Your task to perform on an android device: Add "bose soundlink" to the cart on bestbuy, then select checkout. Image 0: 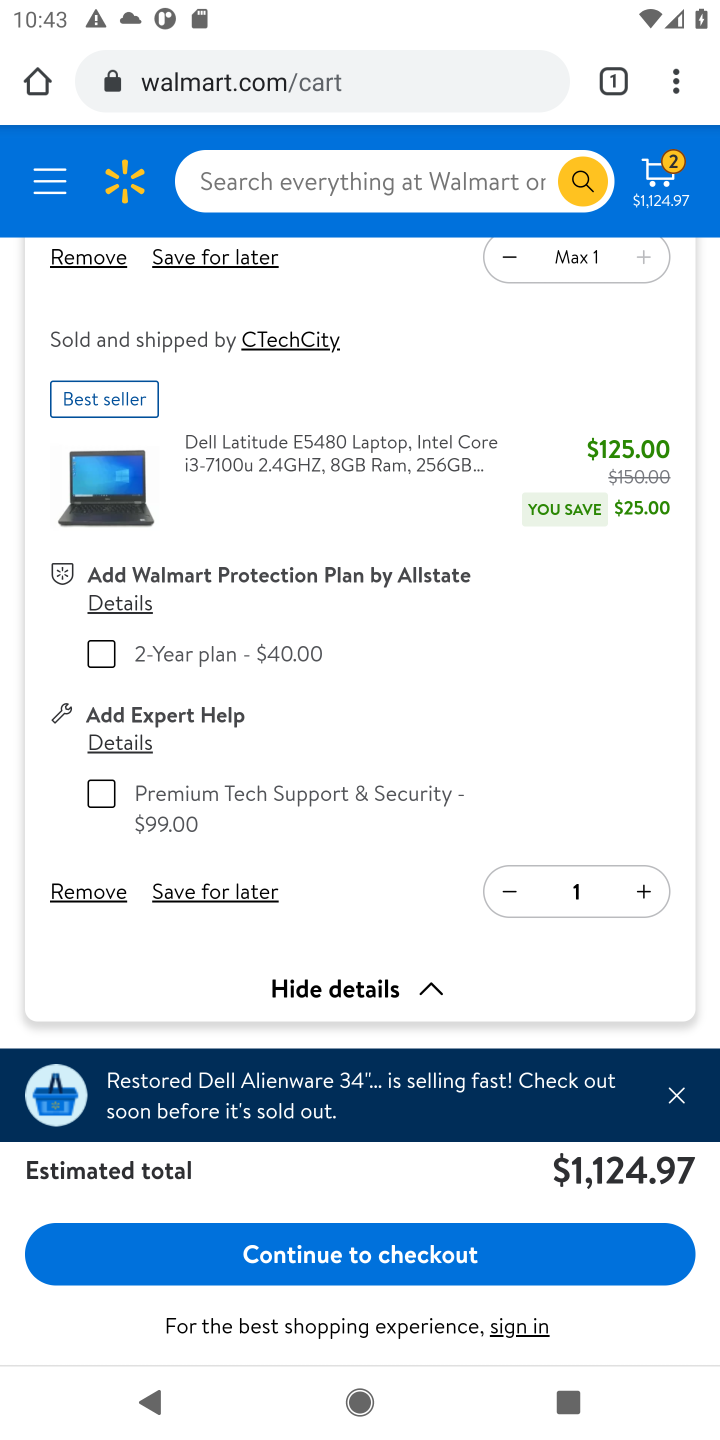
Step 0: click (256, 70)
Your task to perform on an android device: Add "bose soundlink" to the cart on bestbuy, then select checkout. Image 1: 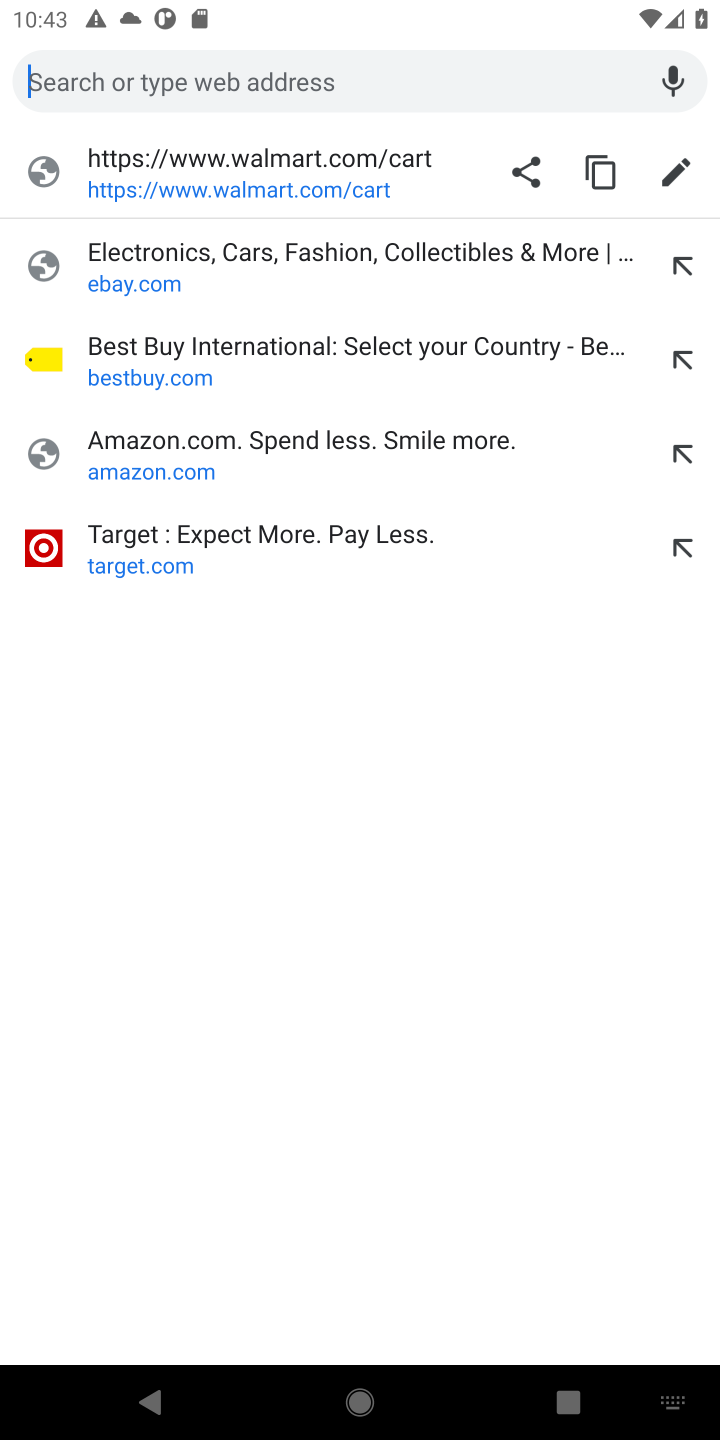
Step 1: click (115, 375)
Your task to perform on an android device: Add "bose soundlink" to the cart on bestbuy, then select checkout. Image 2: 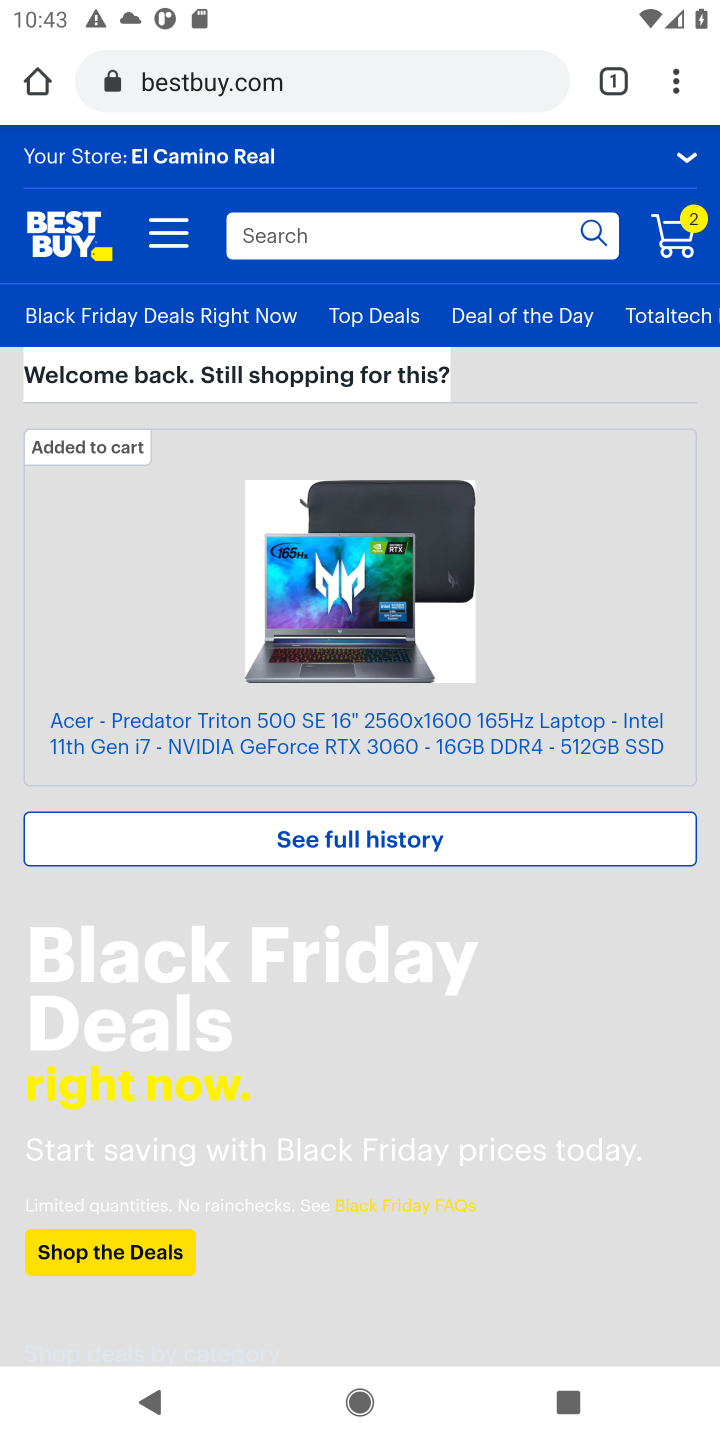
Step 2: click (315, 234)
Your task to perform on an android device: Add "bose soundlink" to the cart on bestbuy, then select checkout. Image 3: 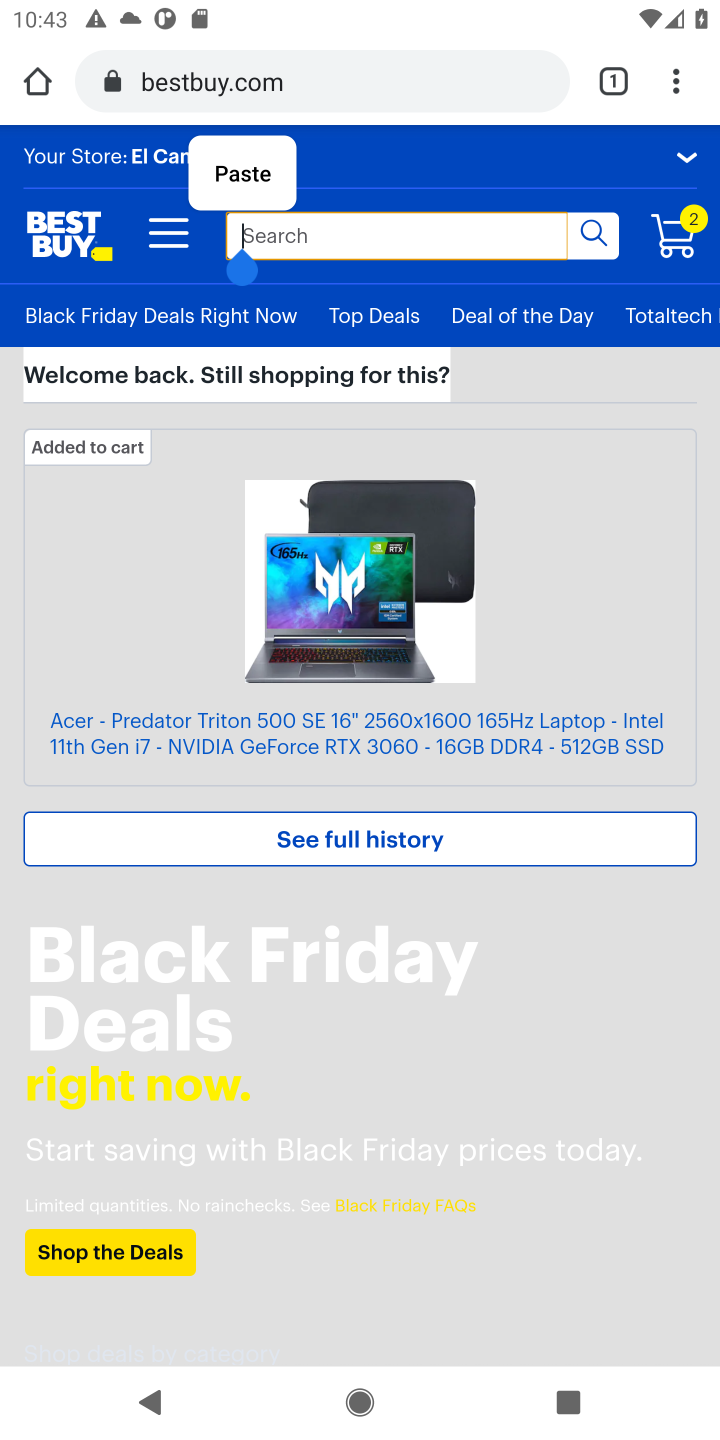
Step 3: type "bose soundlink"
Your task to perform on an android device: Add "bose soundlink" to the cart on bestbuy, then select checkout. Image 4: 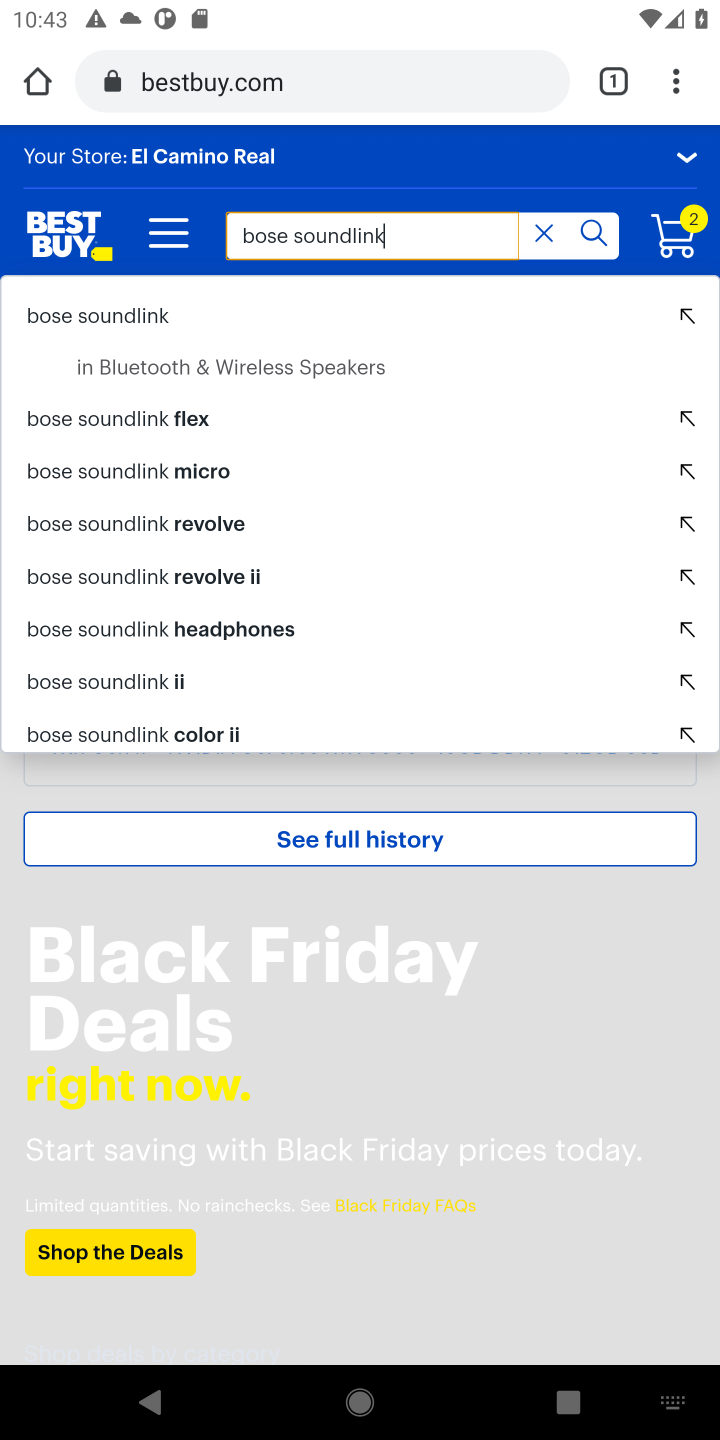
Step 4: click (180, 677)
Your task to perform on an android device: Add "bose soundlink" to the cart on bestbuy, then select checkout. Image 5: 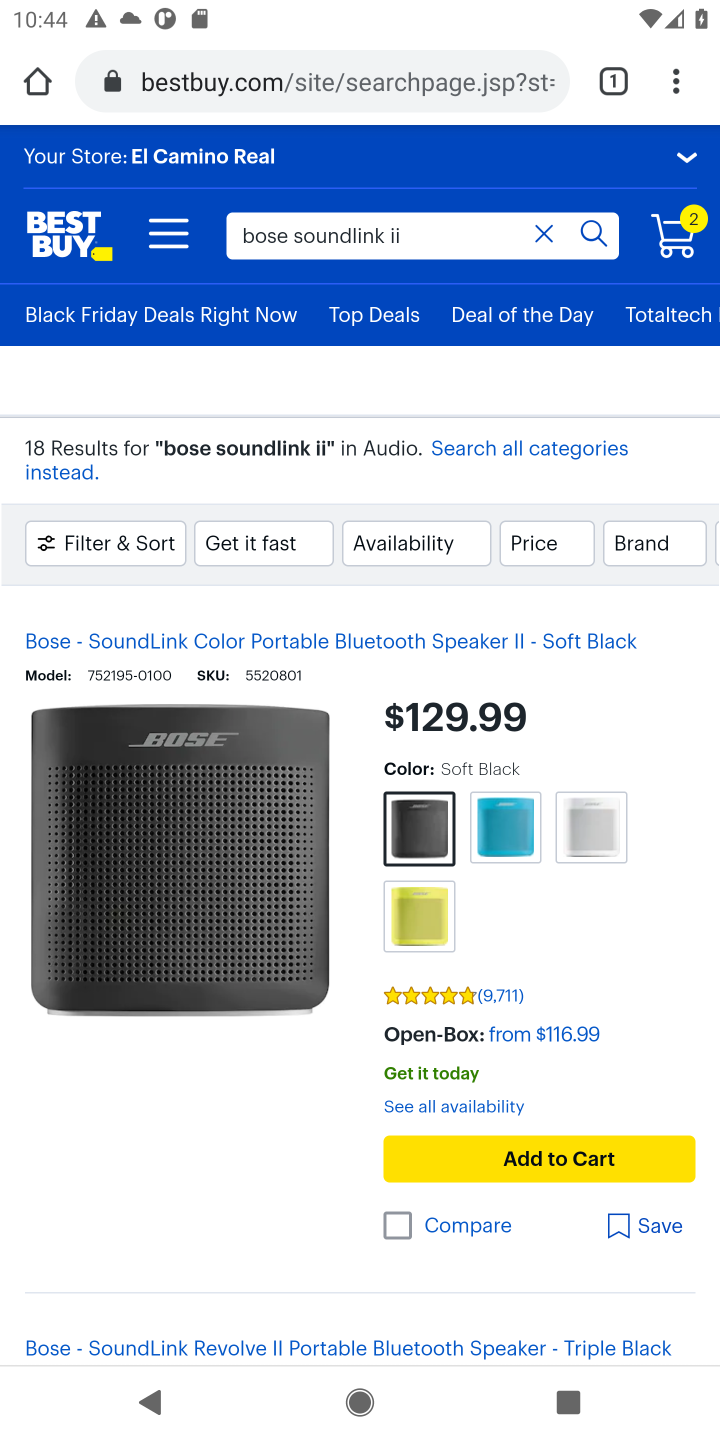
Step 5: click (337, 644)
Your task to perform on an android device: Add "bose soundlink" to the cart on bestbuy, then select checkout. Image 6: 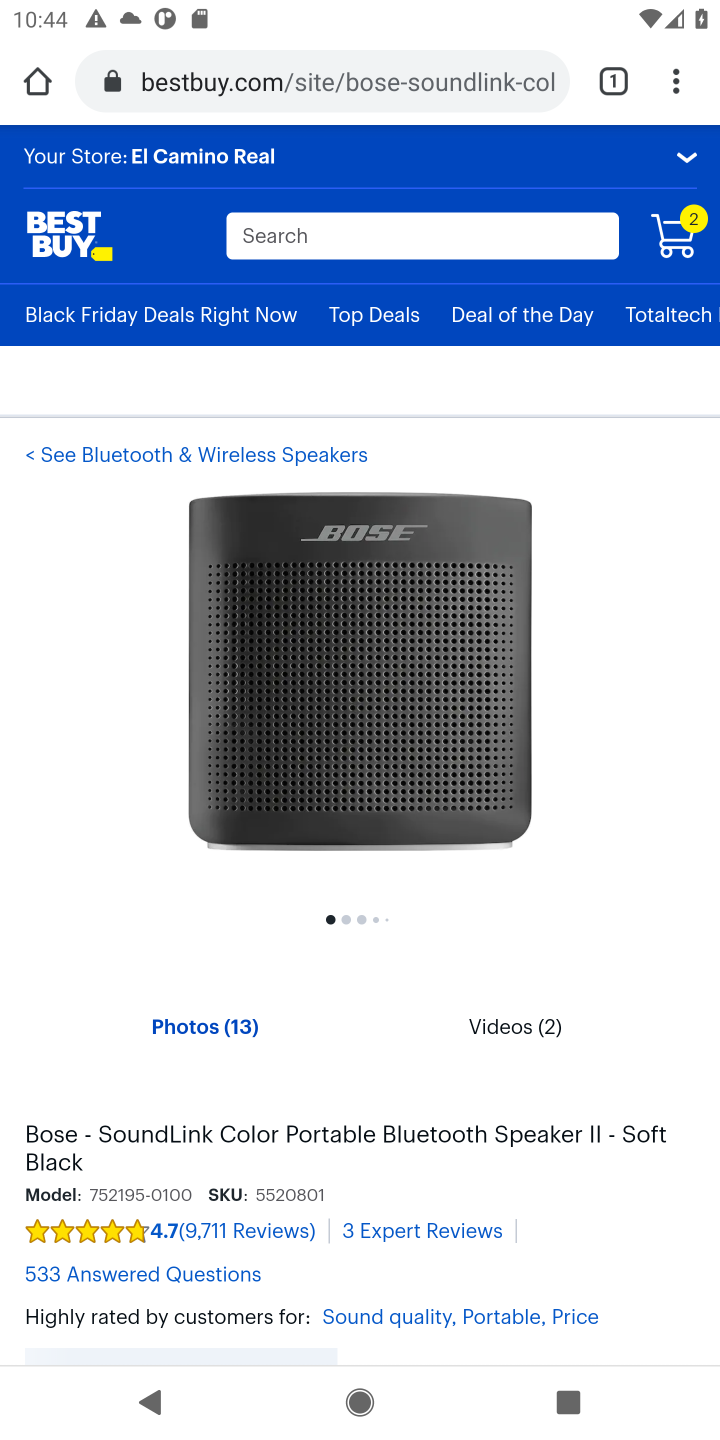
Step 6: drag from (417, 1266) to (462, 390)
Your task to perform on an android device: Add "bose soundlink" to the cart on bestbuy, then select checkout. Image 7: 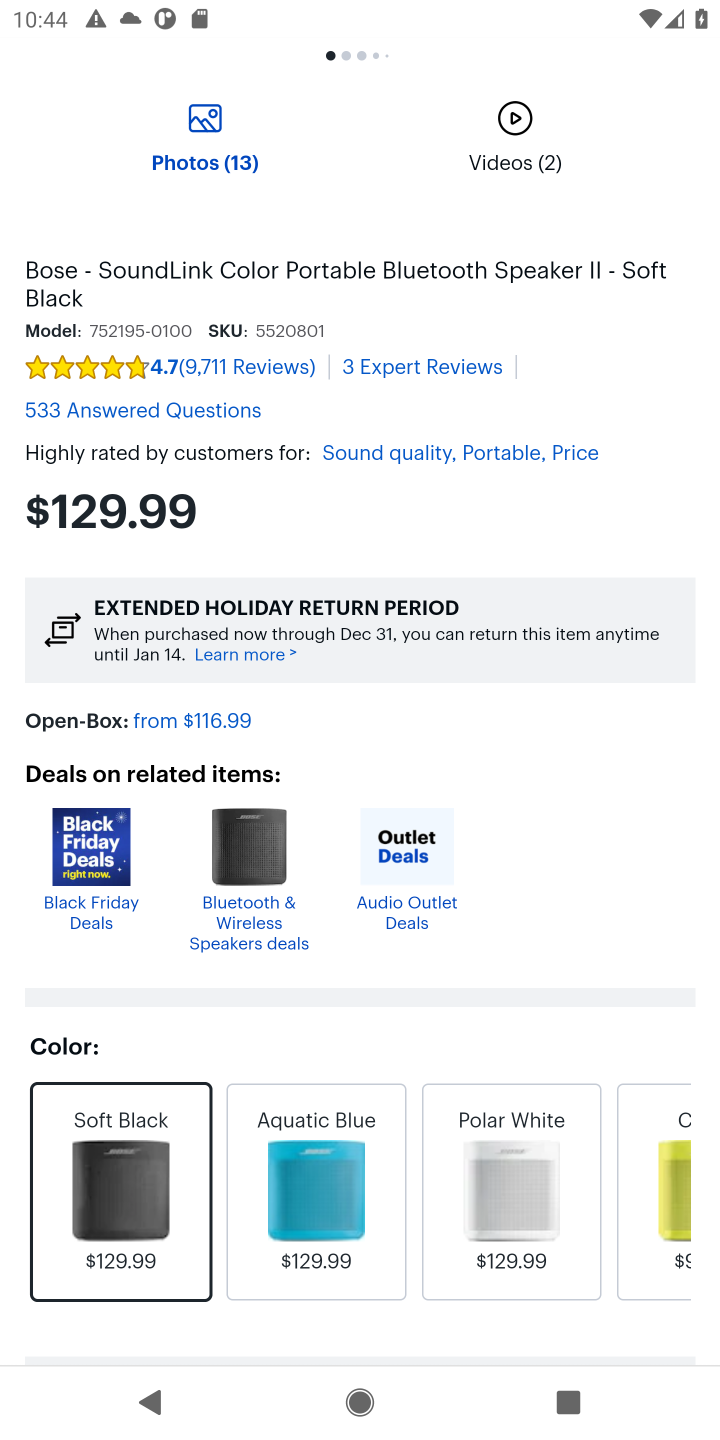
Step 7: drag from (446, 1021) to (516, 321)
Your task to perform on an android device: Add "bose soundlink" to the cart on bestbuy, then select checkout. Image 8: 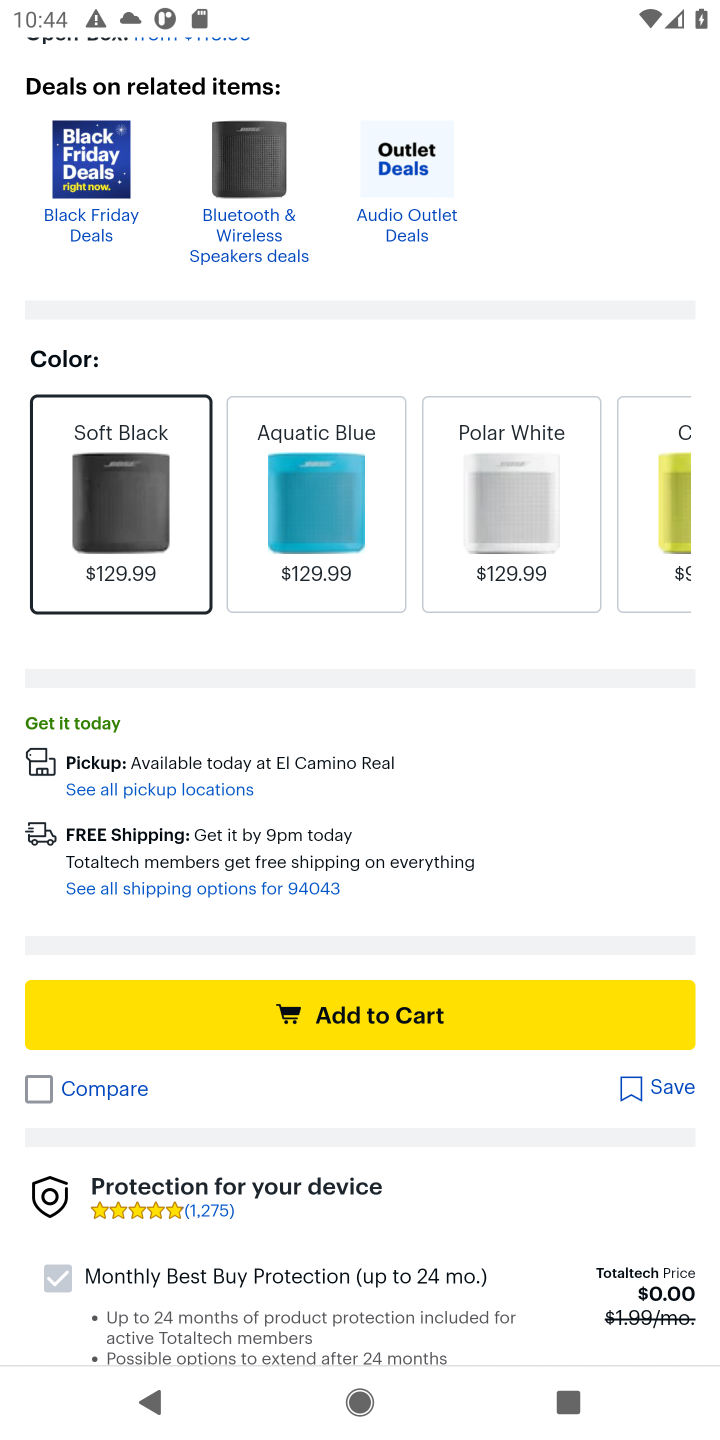
Step 8: drag from (487, 1202) to (508, 998)
Your task to perform on an android device: Add "bose soundlink" to the cart on bestbuy, then select checkout. Image 9: 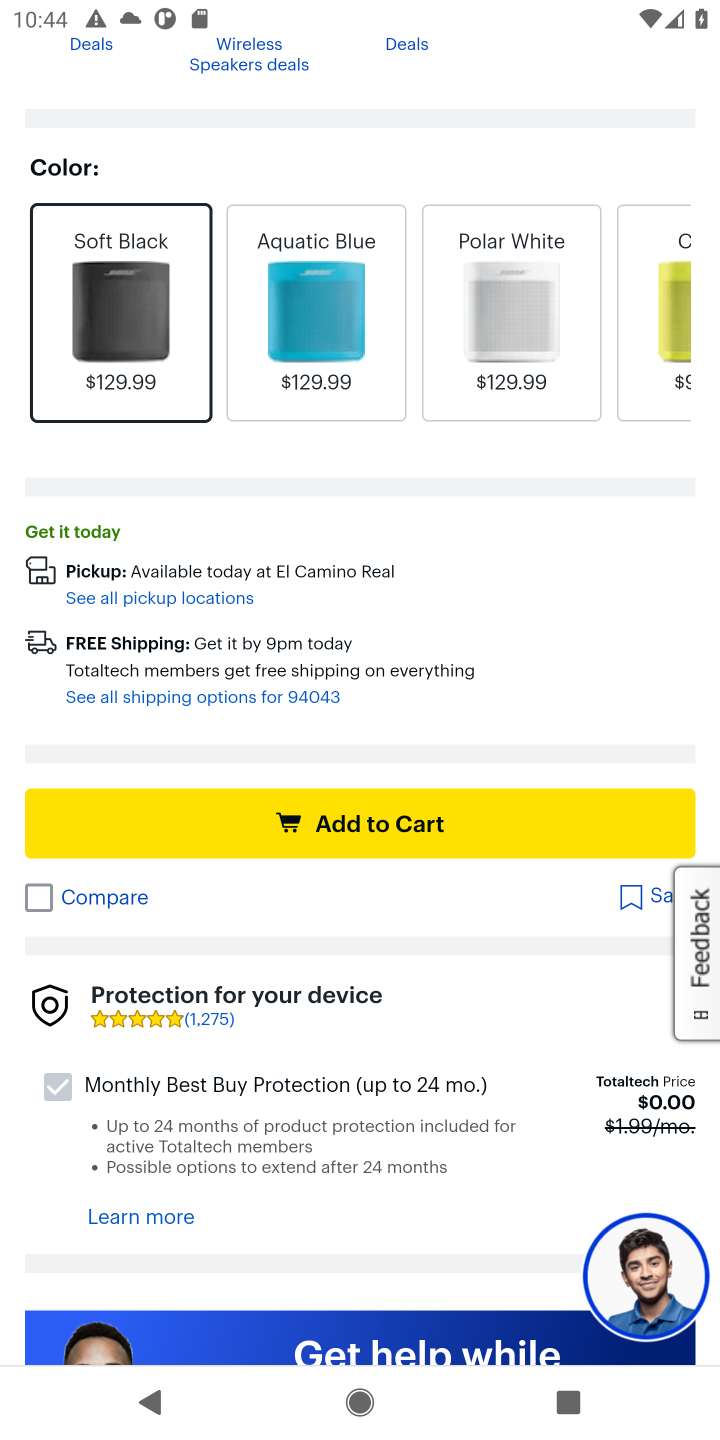
Step 9: click (366, 820)
Your task to perform on an android device: Add "bose soundlink" to the cart on bestbuy, then select checkout. Image 10: 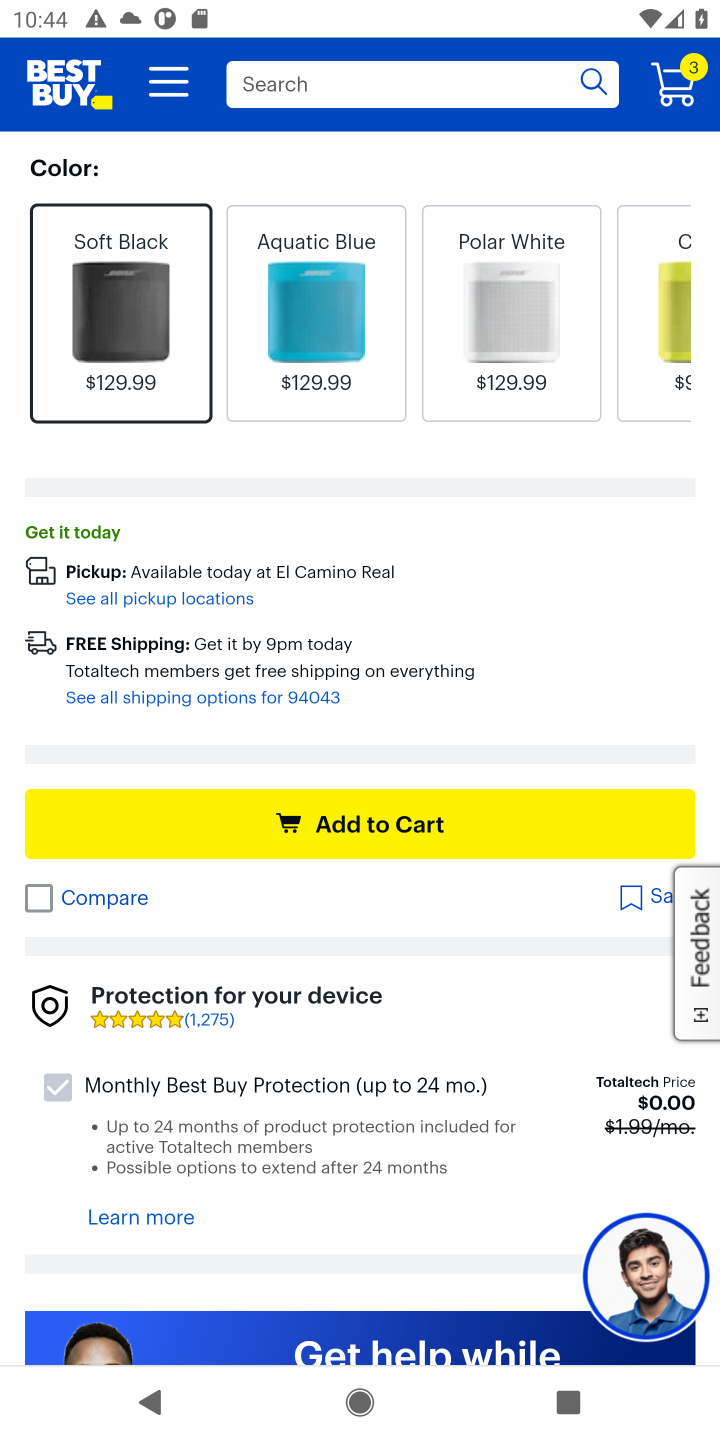
Step 10: click (682, 83)
Your task to perform on an android device: Add "bose soundlink" to the cart on bestbuy, then select checkout. Image 11: 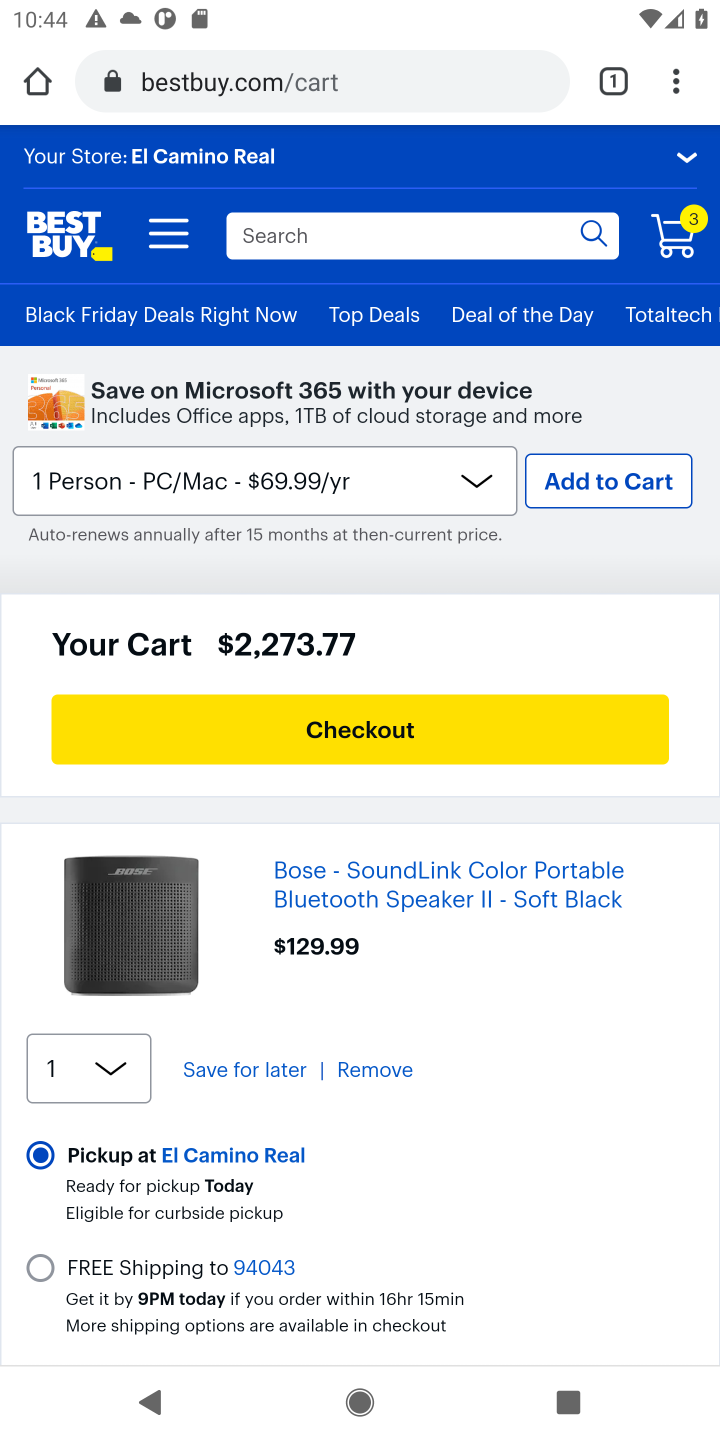
Step 11: click (376, 719)
Your task to perform on an android device: Add "bose soundlink" to the cart on bestbuy, then select checkout. Image 12: 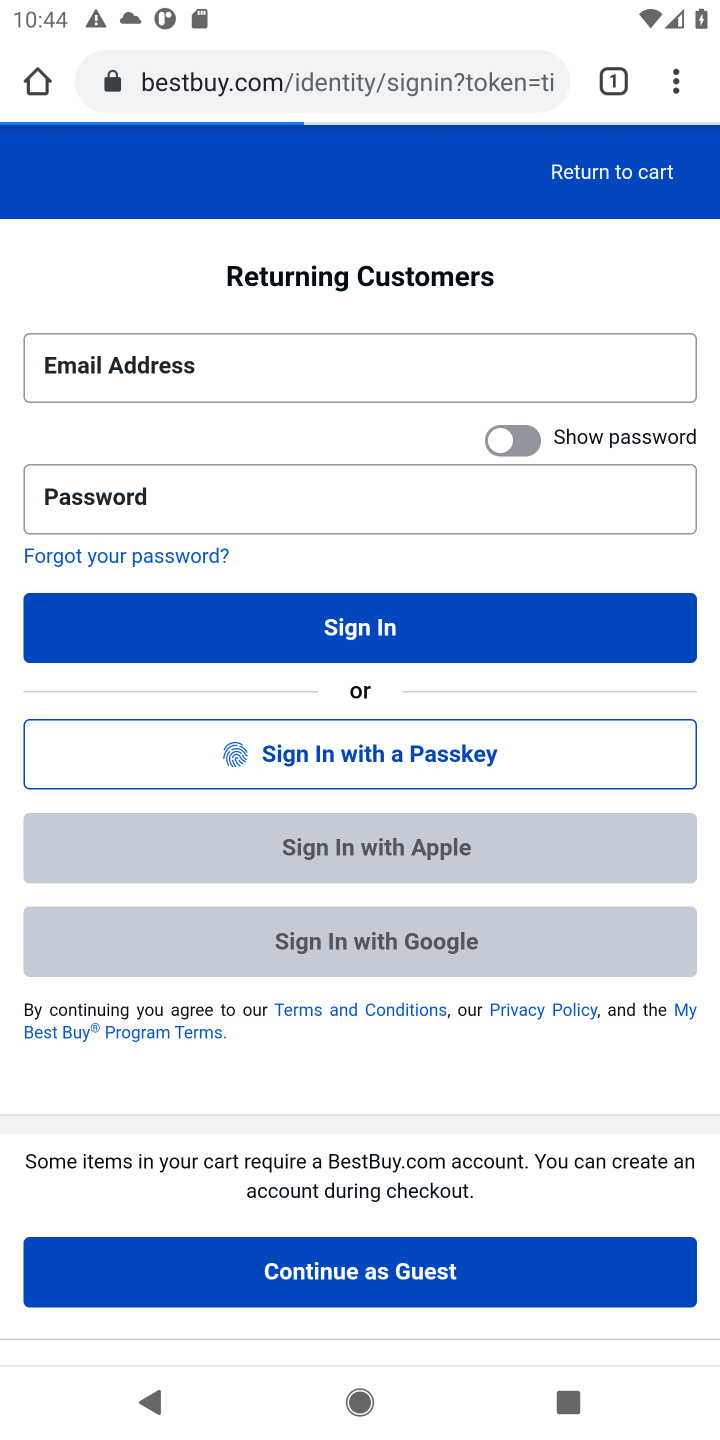
Step 12: task complete